Your task to perform on an android device: Open Android settings Image 0: 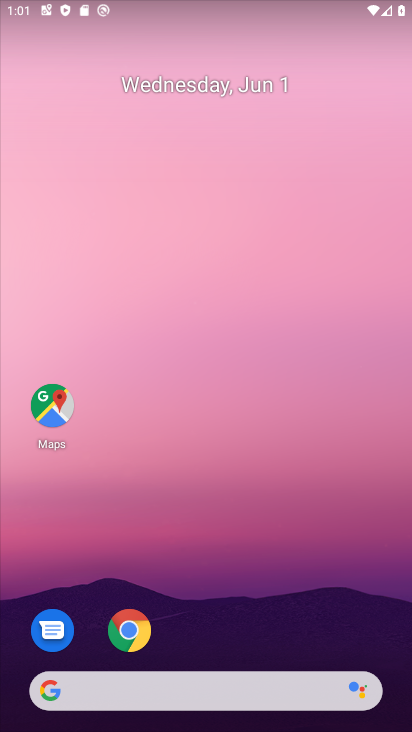
Step 0: press home button
Your task to perform on an android device: Open Android settings Image 1: 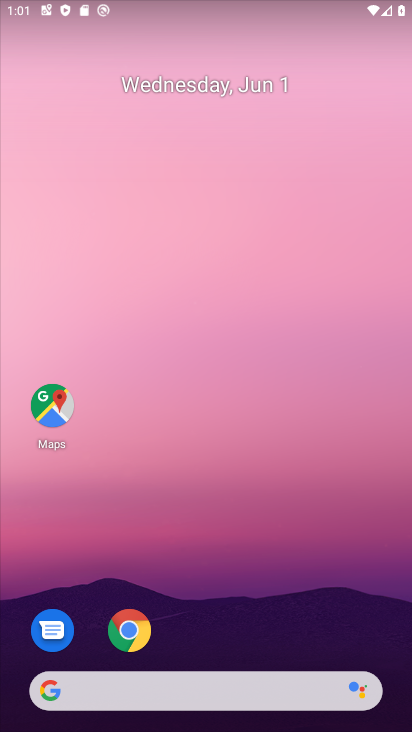
Step 1: drag from (261, 634) to (271, 0)
Your task to perform on an android device: Open Android settings Image 2: 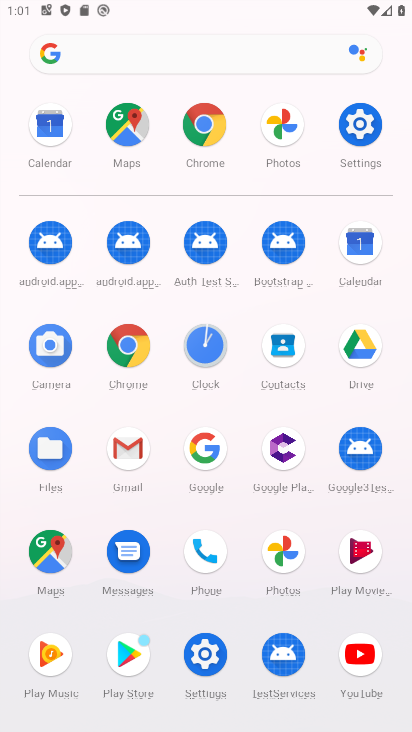
Step 2: click (361, 128)
Your task to perform on an android device: Open Android settings Image 3: 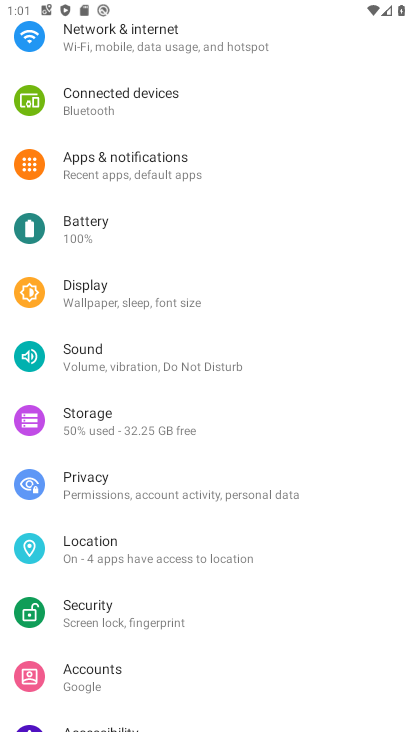
Step 3: task complete